Your task to perform on an android device: open app "Yahoo Mail" Image 0: 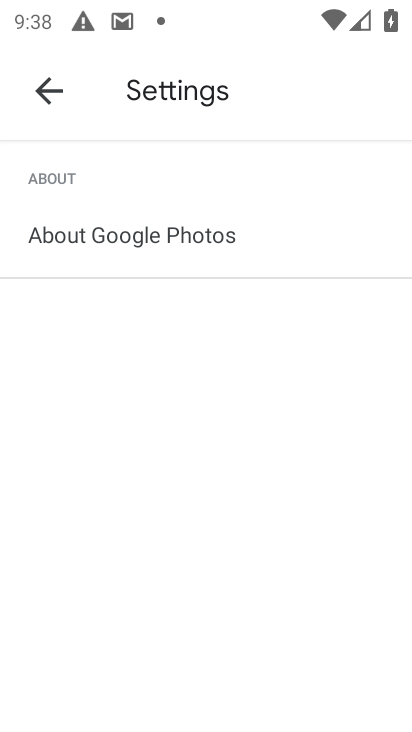
Step 0: press home button
Your task to perform on an android device: open app "Yahoo Mail" Image 1: 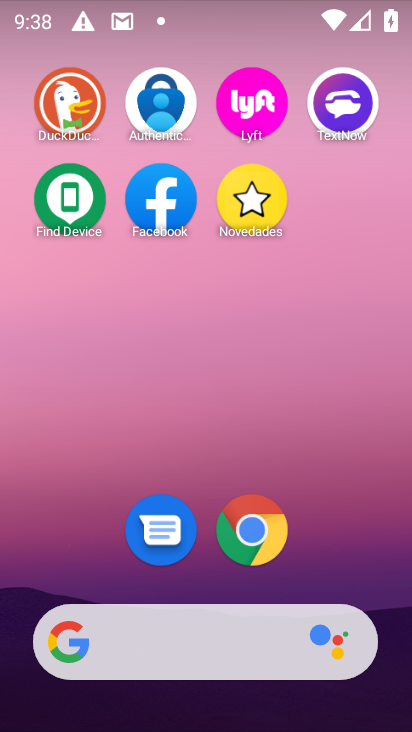
Step 1: drag from (195, 697) to (222, 55)
Your task to perform on an android device: open app "Yahoo Mail" Image 2: 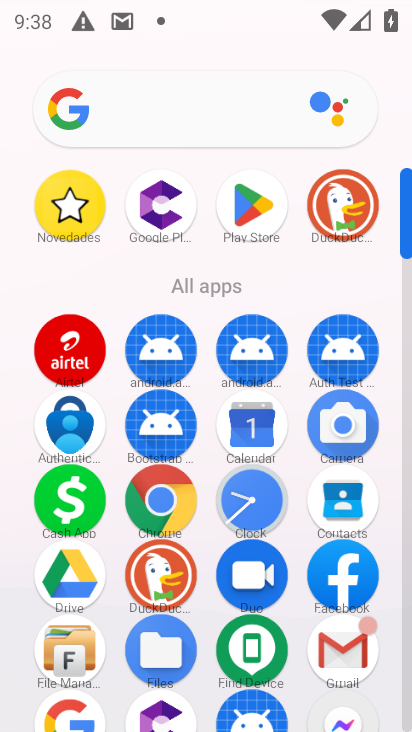
Step 2: click (253, 201)
Your task to perform on an android device: open app "Yahoo Mail" Image 3: 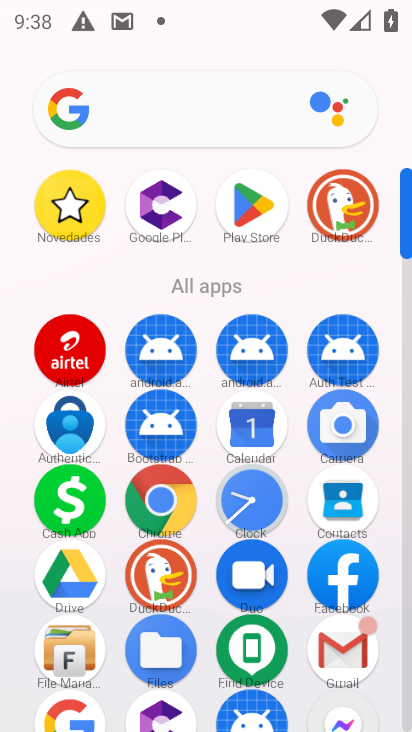
Step 3: click (253, 201)
Your task to perform on an android device: open app "Yahoo Mail" Image 4: 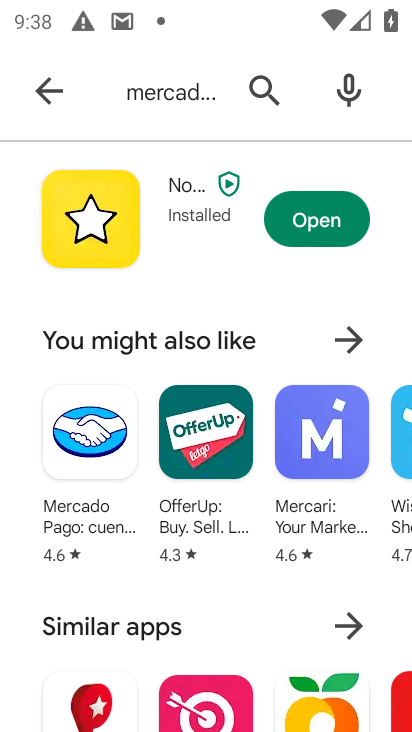
Step 4: click (266, 86)
Your task to perform on an android device: open app "Yahoo Mail" Image 5: 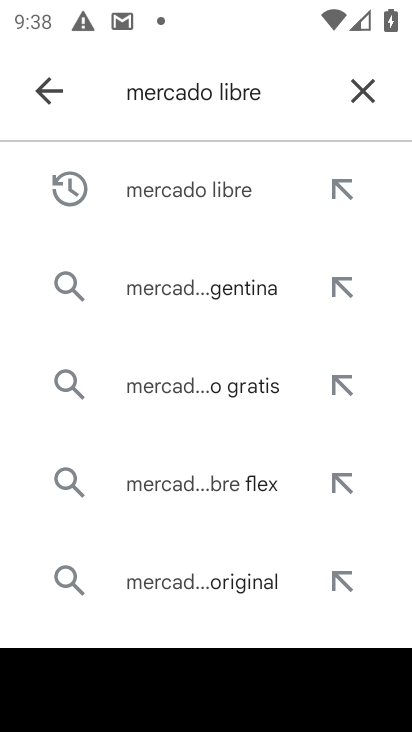
Step 5: click (381, 87)
Your task to perform on an android device: open app "Yahoo Mail" Image 6: 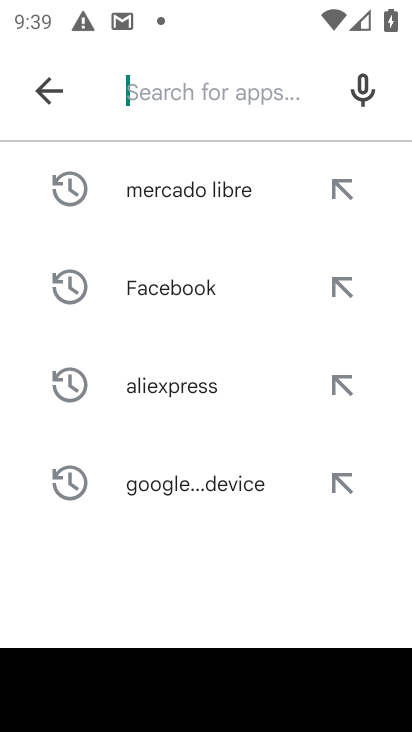
Step 6: type "yahoo Mail""
Your task to perform on an android device: open app "Yahoo Mail" Image 7: 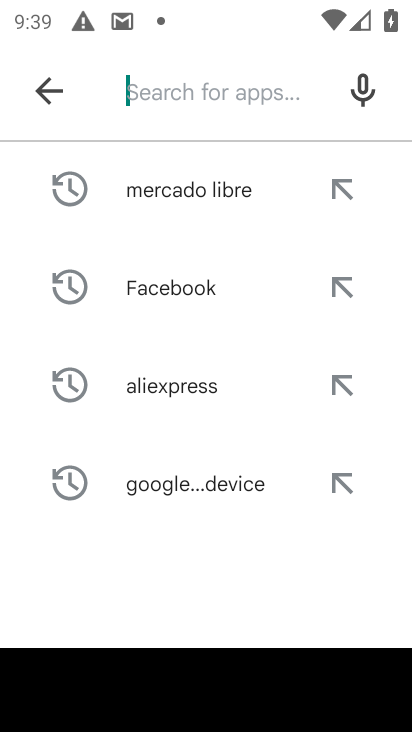
Step 7: type "yahoo Mail""
Your task to perform on an android device: open app "Yahoo Mail" Image 8: 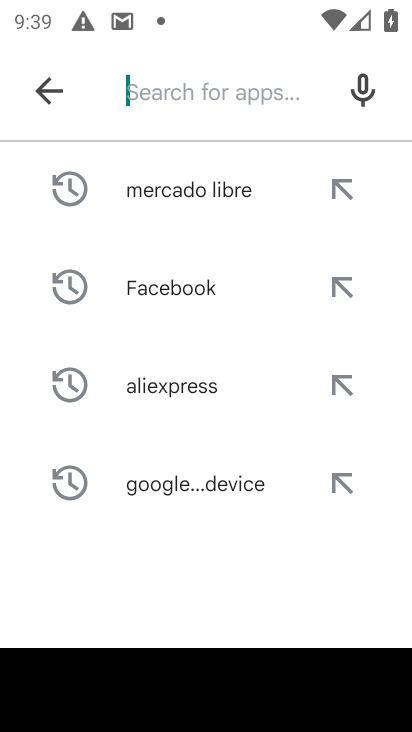
Step 8: press enter
Your task to perform on an android device: open app "Yahoo Mail" Image 9: 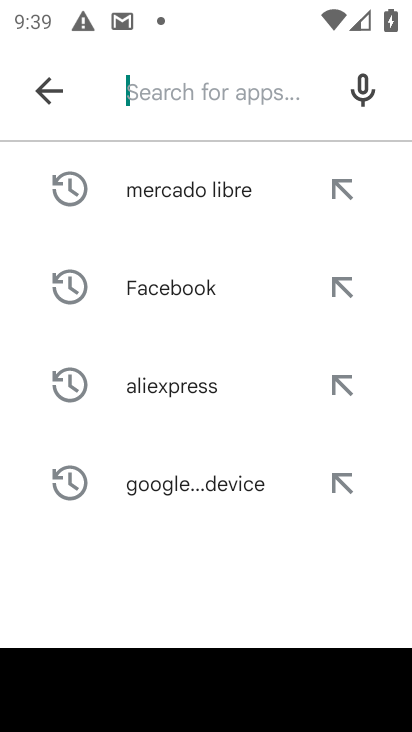
Step 9: type "yahoo mail"
Your task to perform on an android device: open app "Yahoo Mail" Image 10: 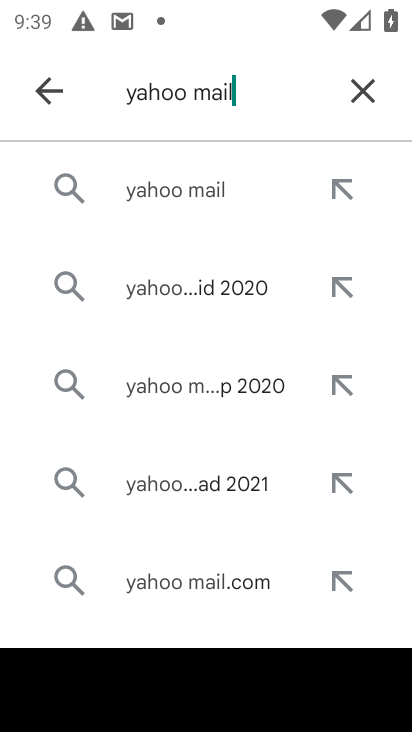
Step 10: click (221, 201)
Your task to perform on an android device: open app "Yahoo Mail" Image 11: 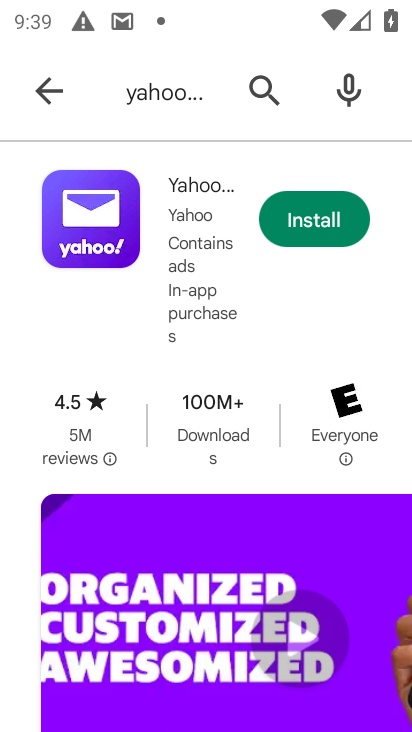
Step 11: task complete